Your task to perform on an android device: Open the phone app and click the voicemail tab. Image 0: 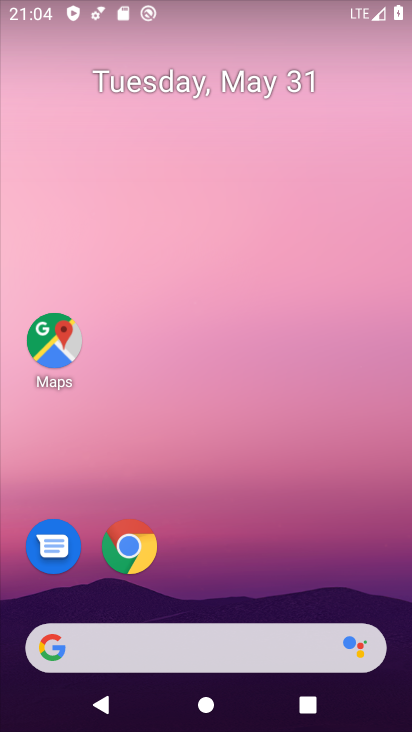
Step 0: drag from (402, 668) to (369, 154)
Your task to perform on an android device: Open the phone app and click the voicemail tab. Image 1: 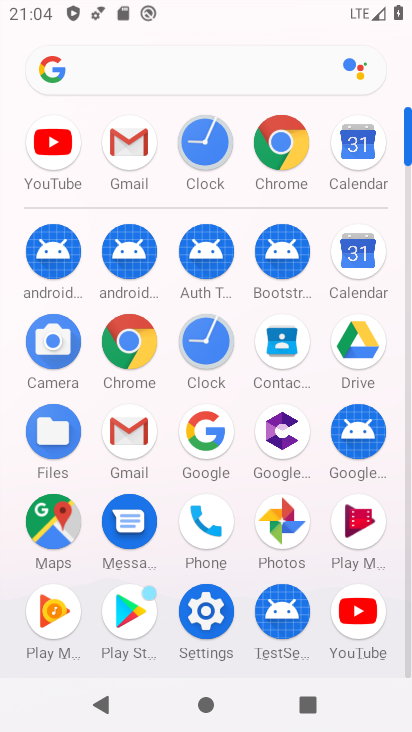
Step 1: click (207, 513)
Your task to perform on an android device: Open the phone app and click the voicemail tab. Image 2: 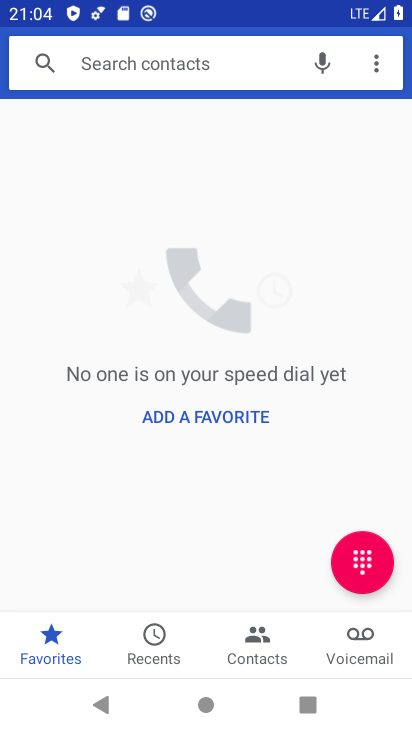
Step 2: click (359, 643)
Your task to perform on an android device: Open the phone app and click the voicemail tab. Image 3: 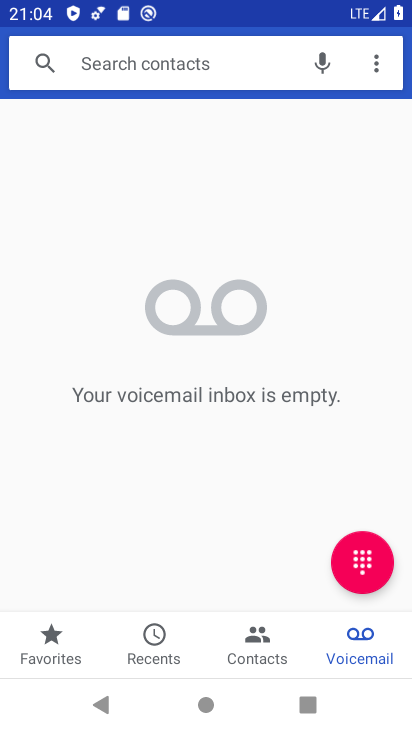
Step 3: task complete